Your task to perform on an android device: Open accessibility settings Image 0: 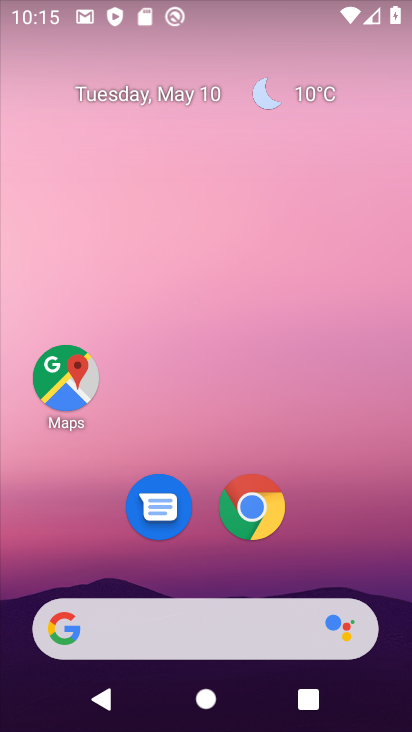
Step 0: drag from (222, 725) to (225, 54)
Your task to perform on an android device: Open accessibility settings Image 1: 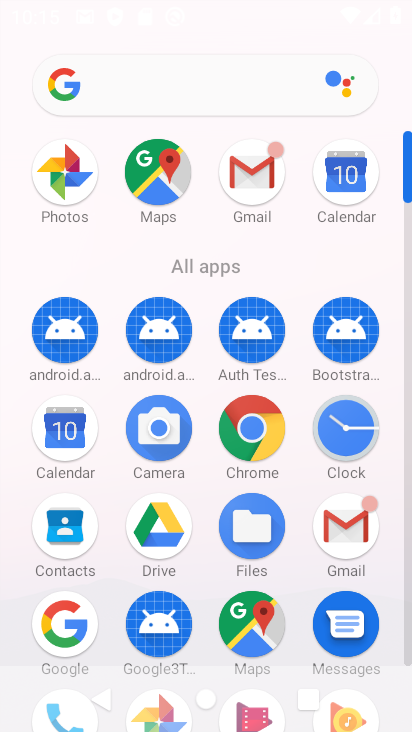
Step 1: drag from (198, 610) to (203, 192)
Your task to perform on an android device: Open accessibility settings Image 2: 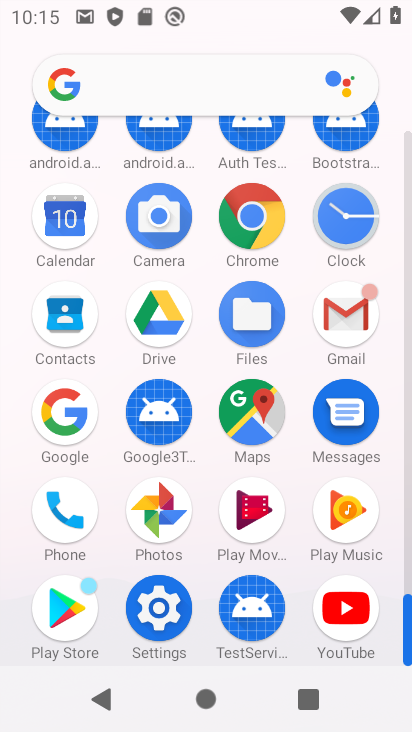
Step 2: click (170, 616)
Your task to perform on an android device: Open accessibility settings Image 3: 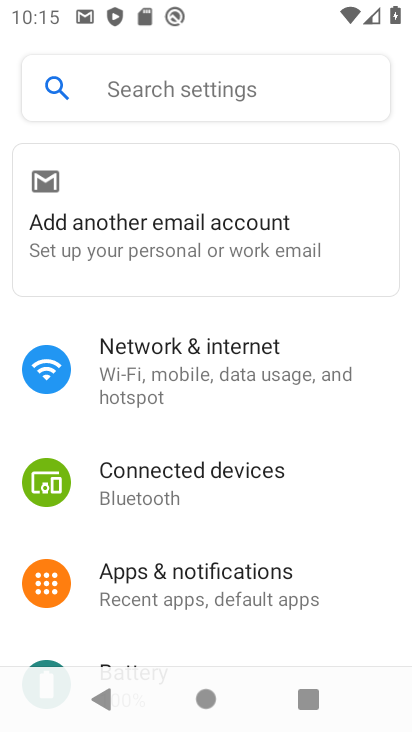
Step 3: drag from (205, 651) to (207, 402)
Your task to perform on an android device: Open accessibility settings Image 4: 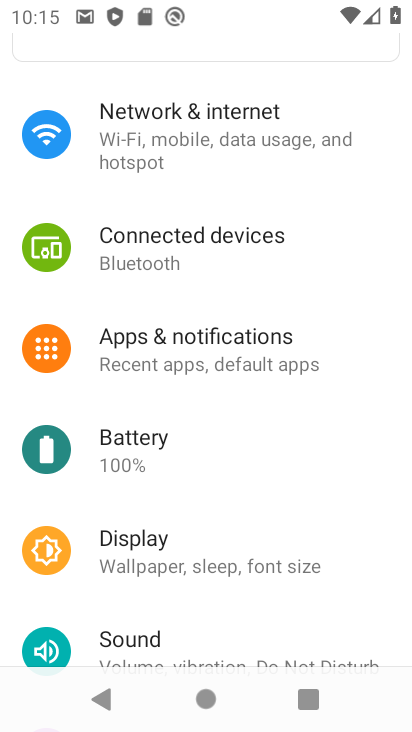
Step 4: drag from (203, 627) to (215, 270)
Your task to perform on an android device: Open accessibility settings Image 5: 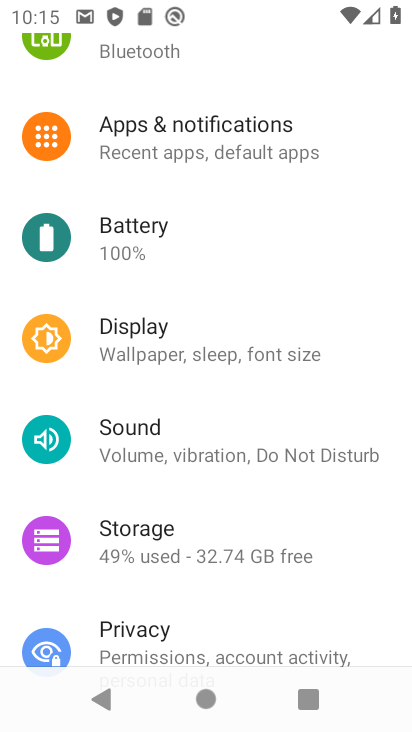
Step 5: drag from (184, 628) to (193, 290)
Your task to perform on an android device: Open accessibility settings Image 6: 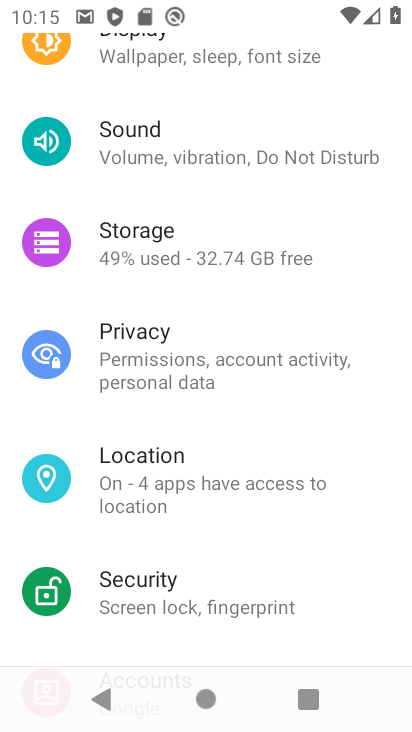
Step 6: drag from (158, 582) to (190, 160)
Your task to perform on an android device: Open accessibility settings Image 7: 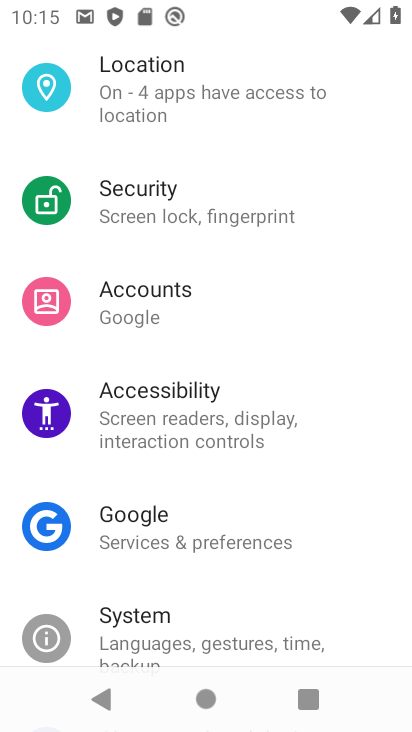
Step 7: click (163, 411)
Your task to perform on an android device: Open accessibility settings Image 8: 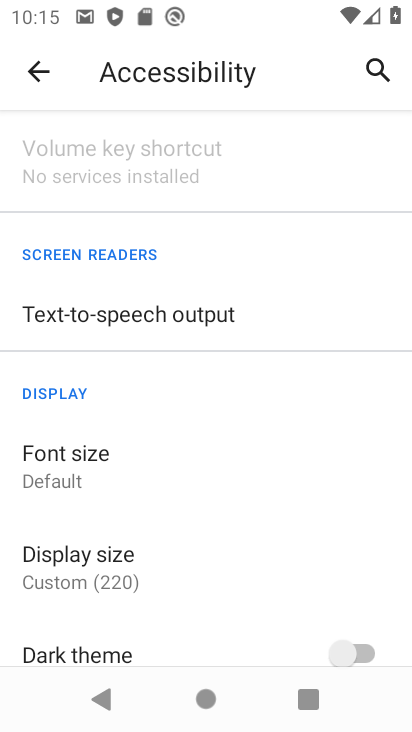
Step 8: task complete